Your task to perform on an android device: install app "Yahoo Mail" Image 0: 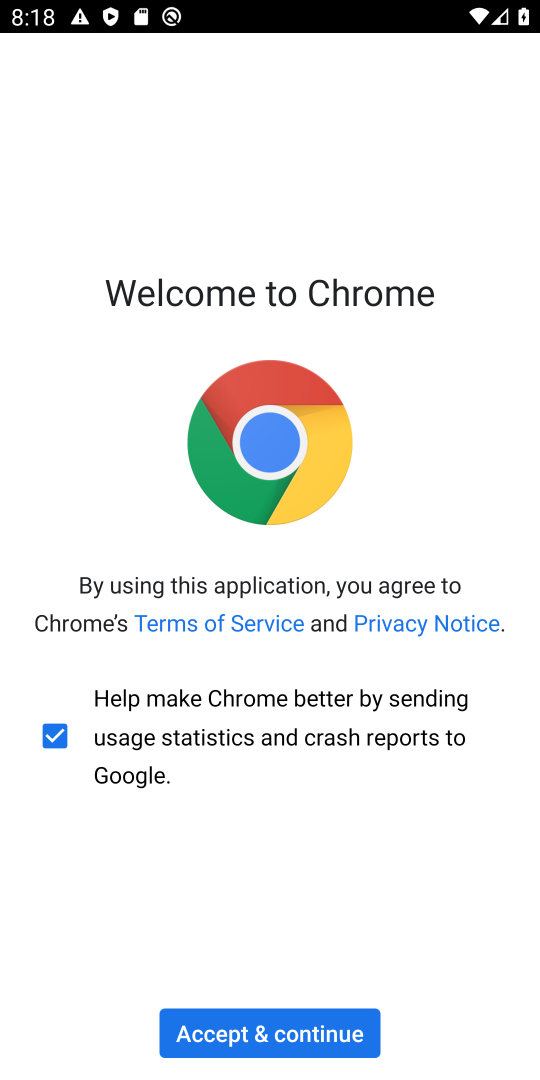
Step 0: press home button
Your task to perform on an android device: install app "Yahoo Mail" Image 1: 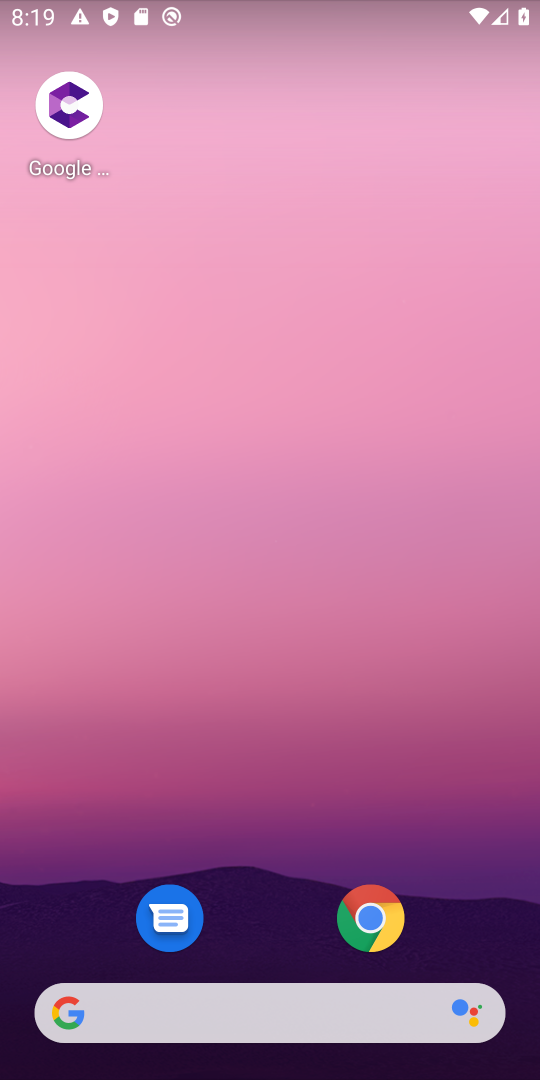
Step 1: drag from (278, 591) to (262, 328)
Your task to perform on an android device: install app "Yahoo Mail" Image 2: 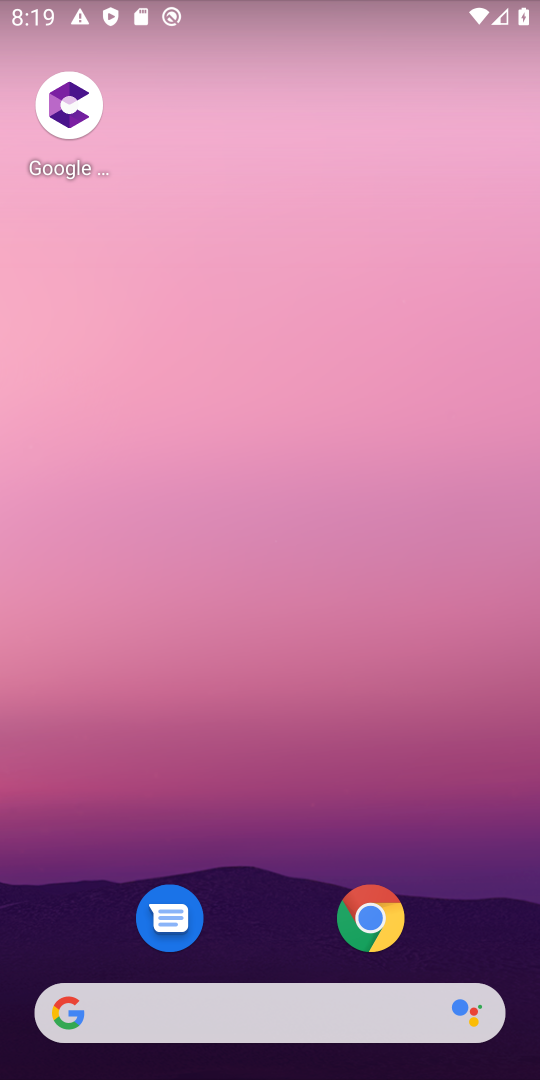
Step 2: drag from (200, 1006) to (267, 57)
Your task to perform on an android device: install app "Yahoo Mail" Image 3: 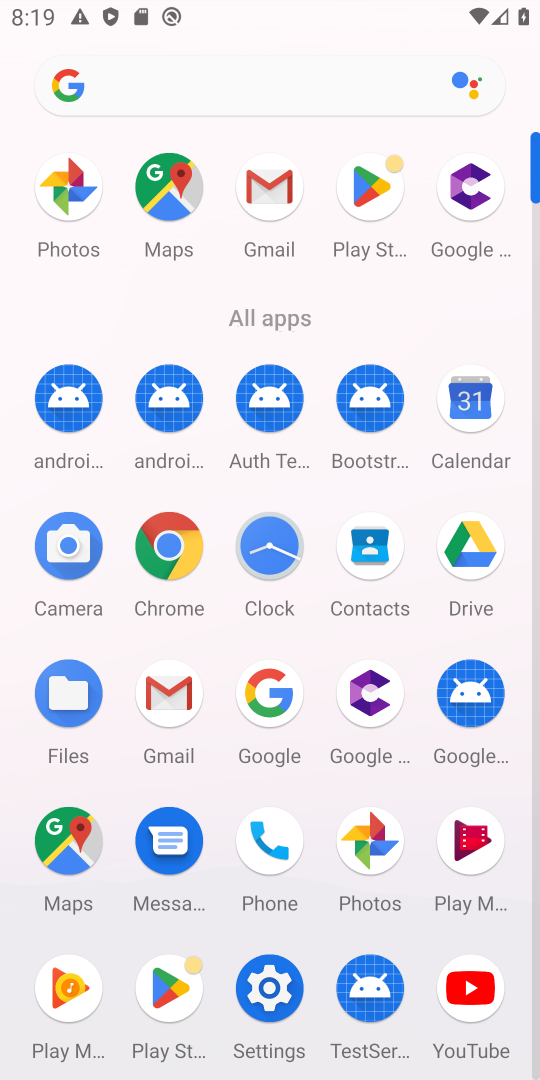
Step 3: click (367, 168)
Your task to perform on an android device: install app "Yahoo Mail" Image 4: 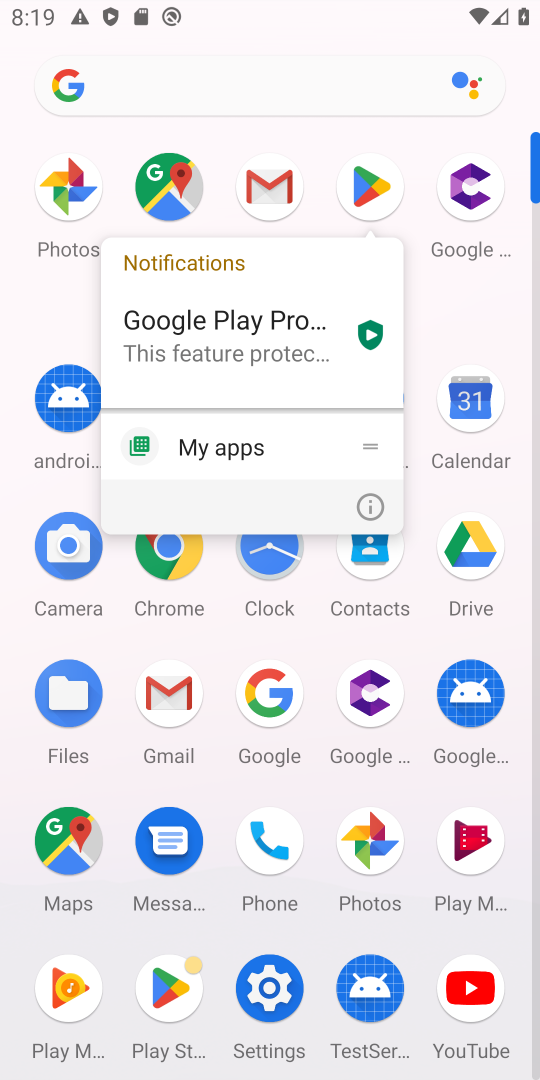
Step 4: click (367, 168)
Your task to perform on an android device: install app "Yahoo Mail" Image 5: 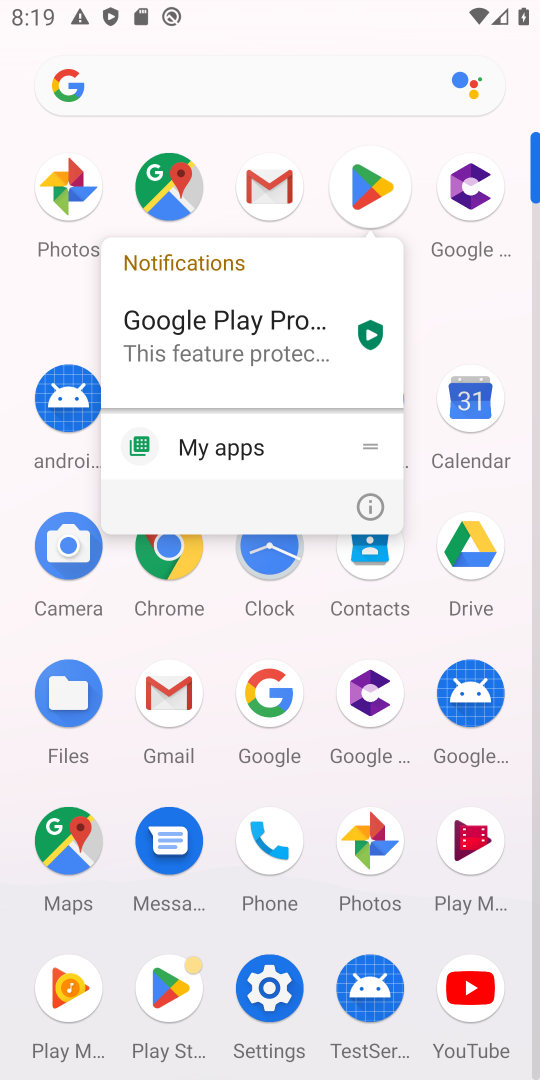
Step 5: click (367, 168)
Your task to perform on an android device: install app "Yahoo Mail" Image 6: 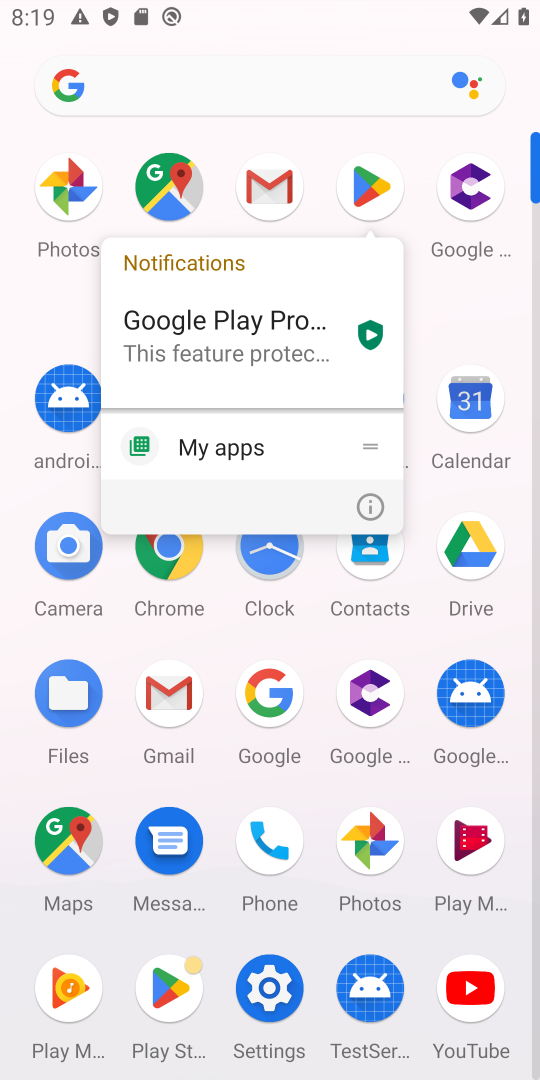
Step 6: press home button
Your task to perform on an android device: install app "Yahoo Mail" Image 7: 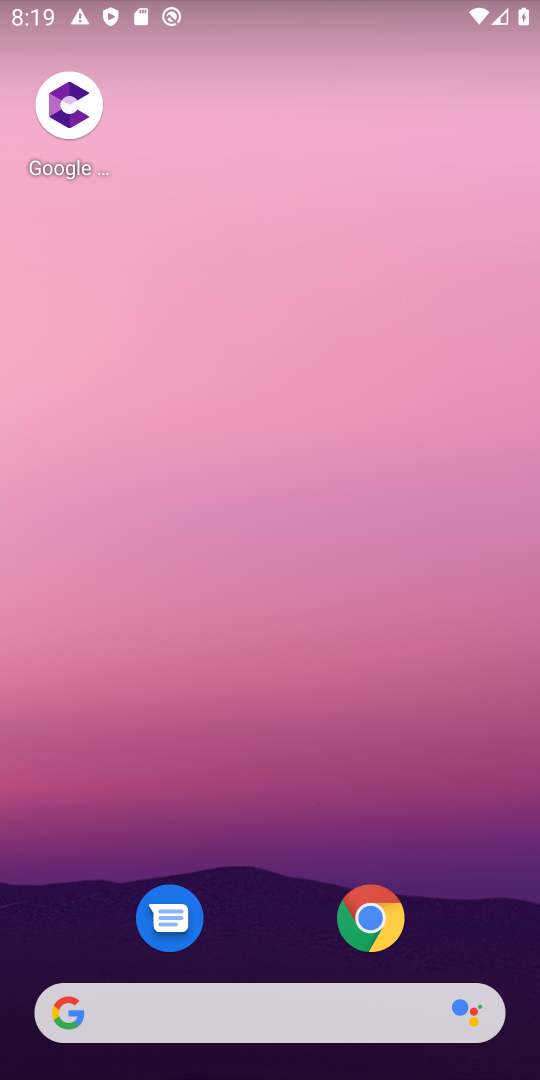
Step 7: drag from (144, 1039) to (512, 449)
Your task to perform on an android device: install app "Yahoo Mail" Image 8: 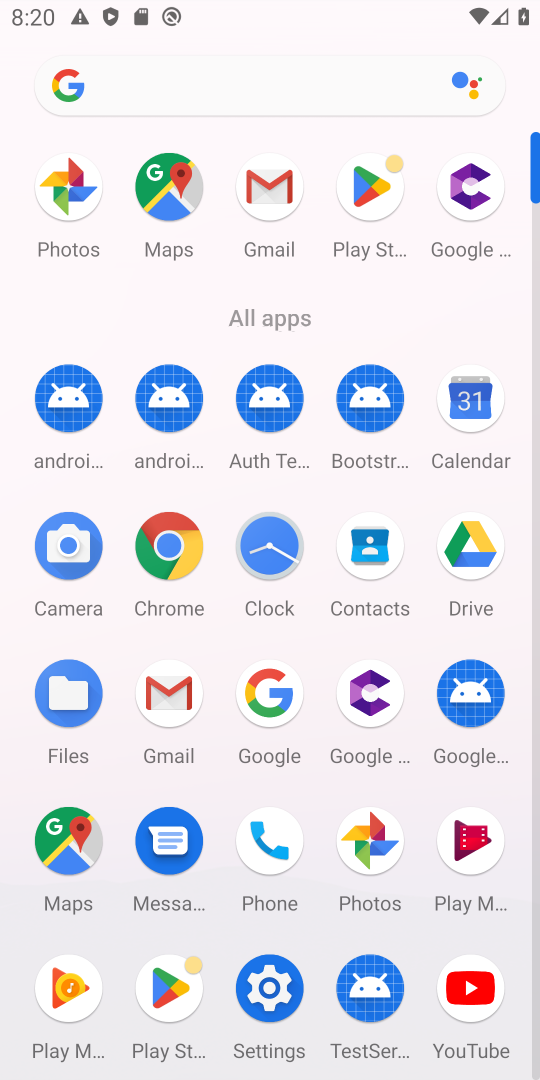
Step 8: click (372, 198)
Your task to perform on an android device: install app "Yahoo Mail" Image 9: 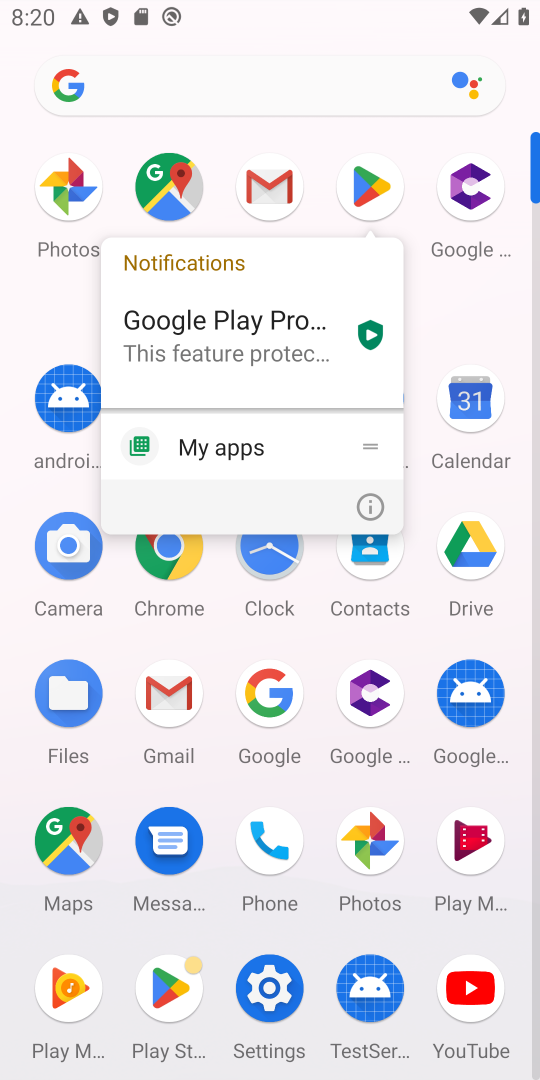
Step 9: click (372, 198)
Your task to perform on an android device: install app "Yahoo Mail" Image 10: 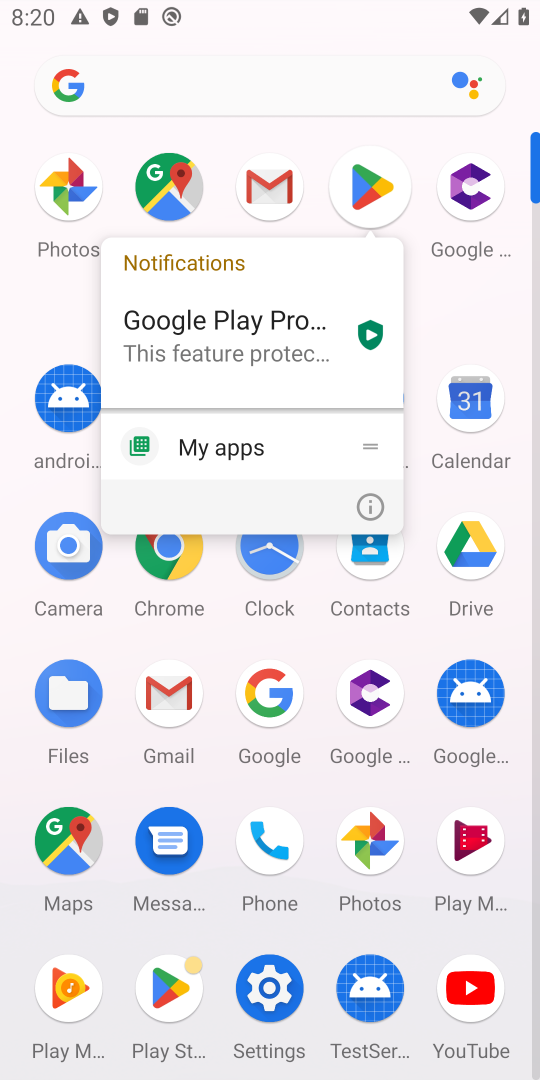
Step 10: click (372, 198)
Your task to perform on an android device: install app "Yahoo Mail" Image 11: 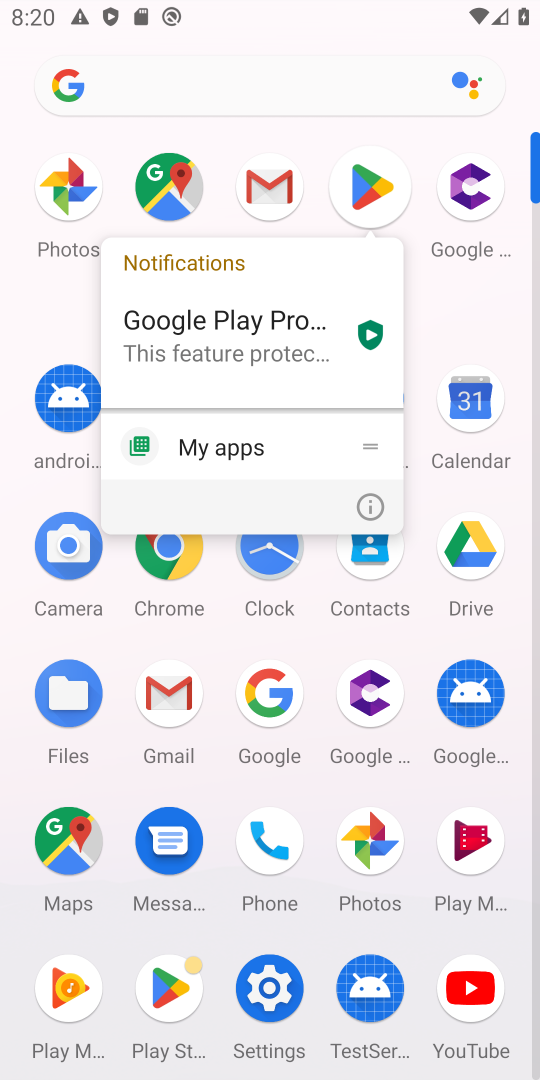
Step 11: click (372, 198)
Your task to perform on an android device: install app "Yahoo Mail" Image 12: 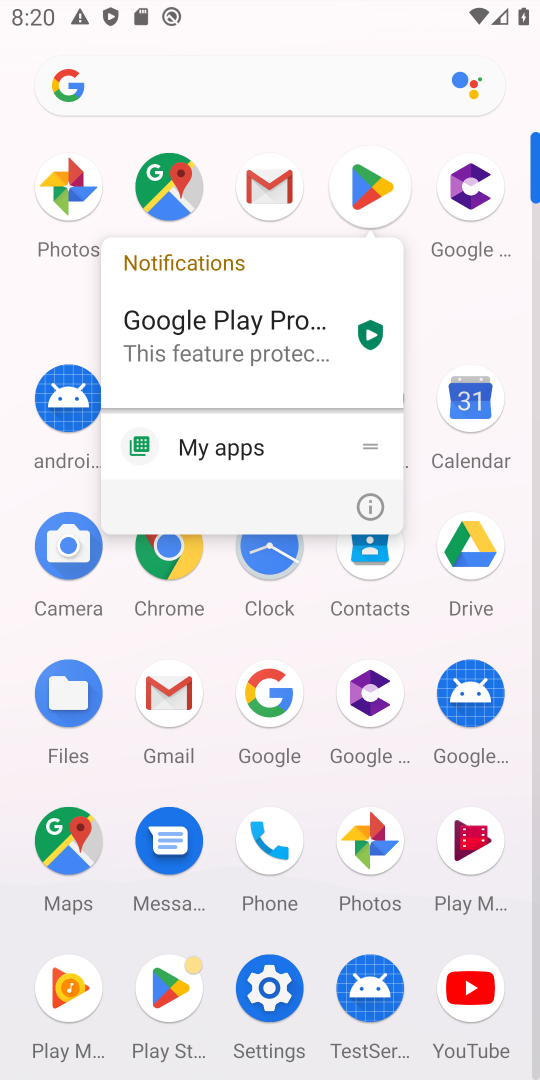
Step 12: click (372, 198)
Your task to perform on an android device: install app "Yahoo Mail" Image 13: 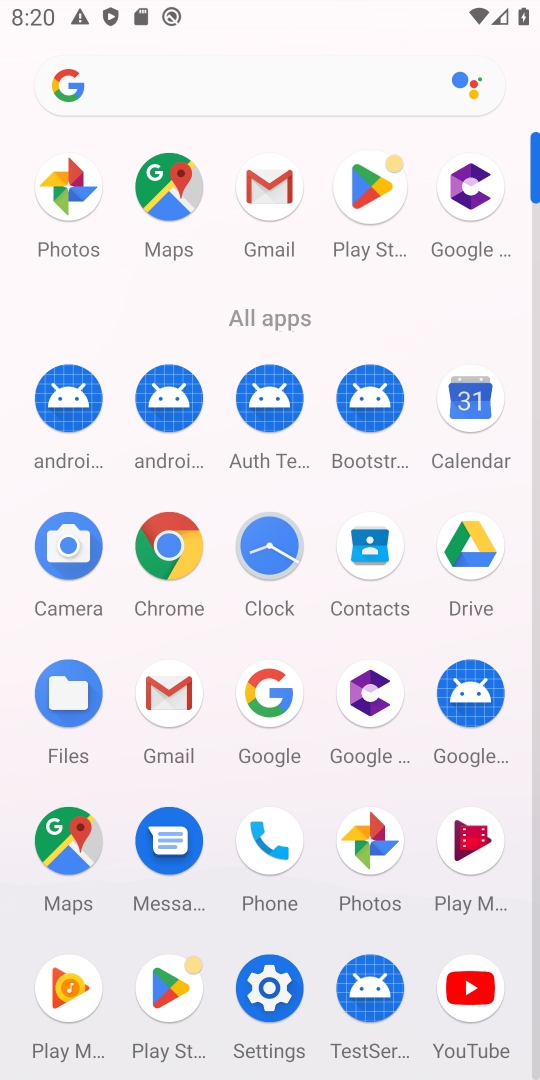
Step 13: click (372, 198)
Your task to perform on an android device: install app "Yahoo Mail" Image 14: 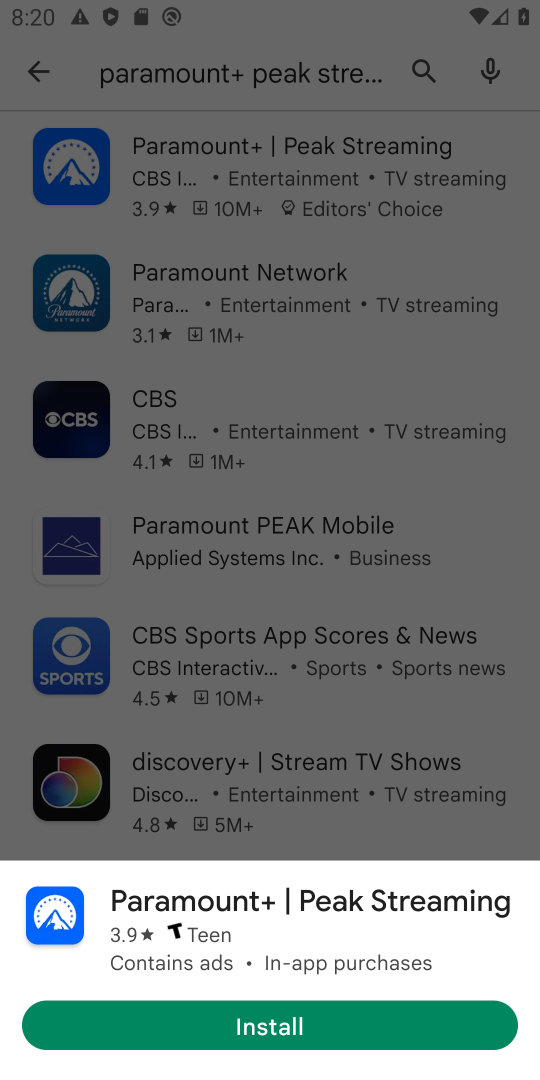
Step 14: click (378, 42)
Your task to perform on an android device: install app "Yahoo Mail" Image 15: 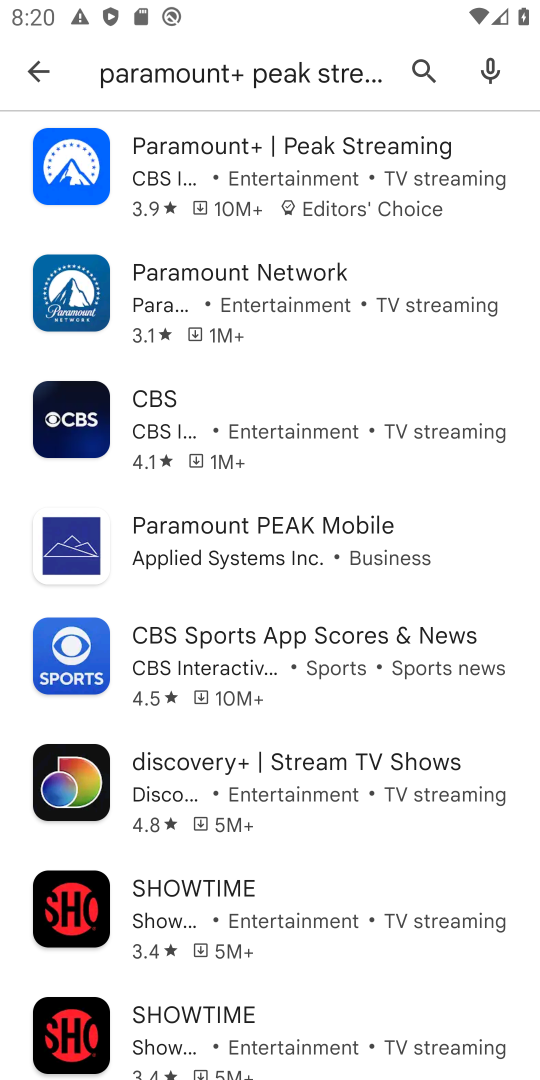
Step 15: click (418, 64)
Your task to perform on an android device: install app "Yahoo Mail" Image 16: 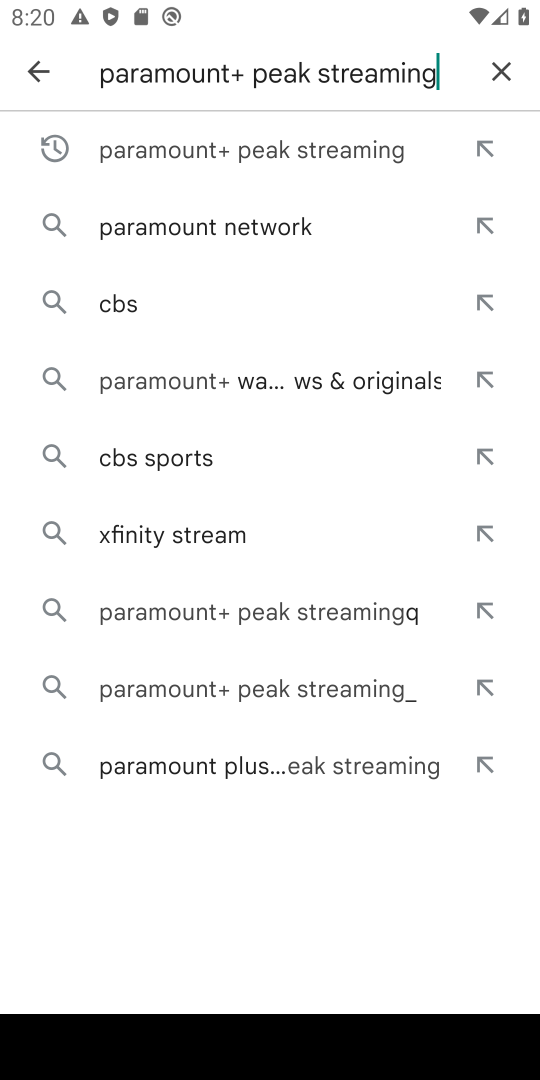
Step 16: click (492, 81)
Your task to perform on an android device: install app "Yahoo Mail" Image 17: 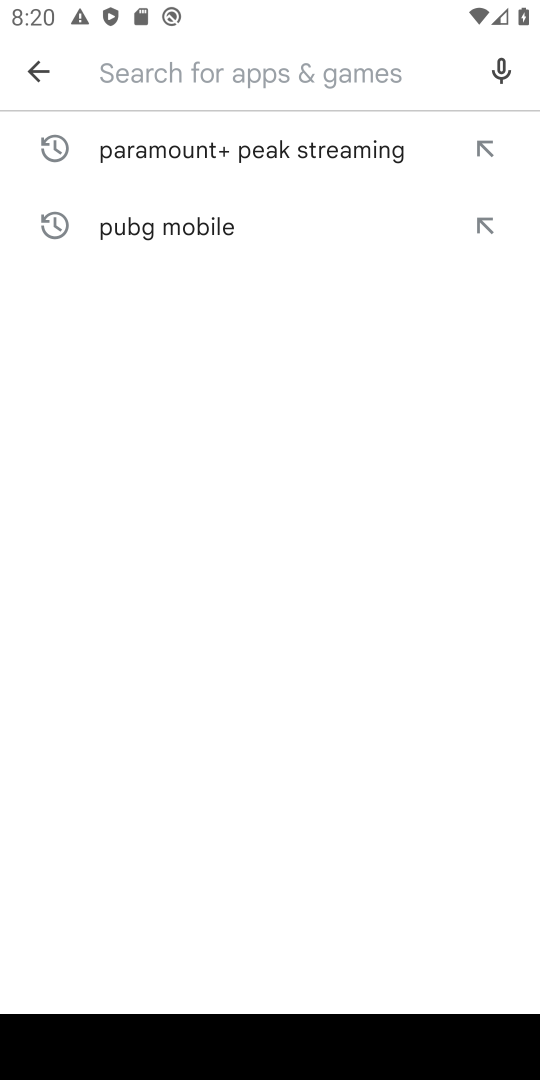
Step 17: type "Yahoo Mail"
Your task to perform on an android device: install app "Yahoo Mail" Image 18: 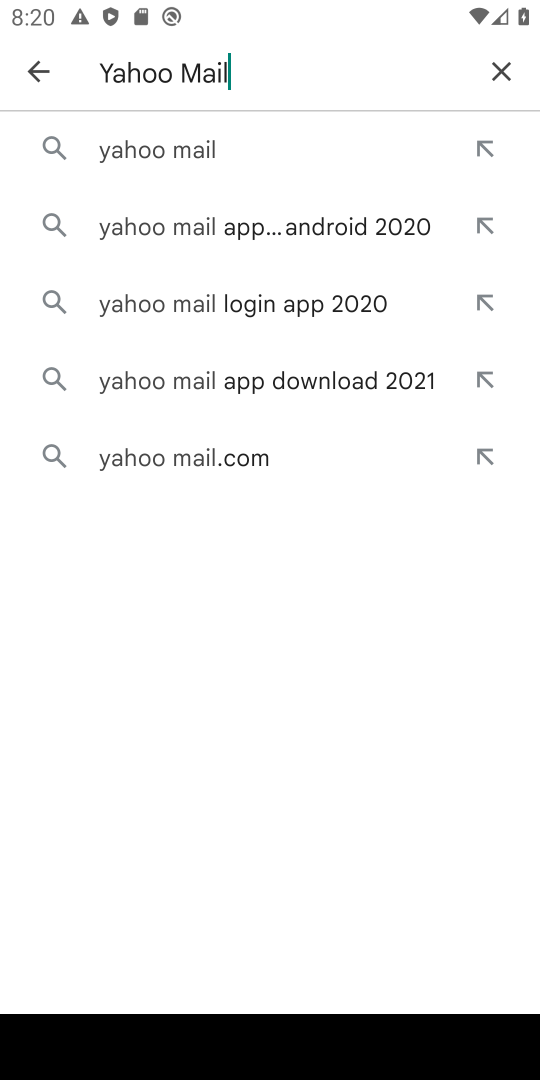
Step 18: click (155, 151)
Your task to perform on an android device: install app "Yahoo Mail" Image 19: 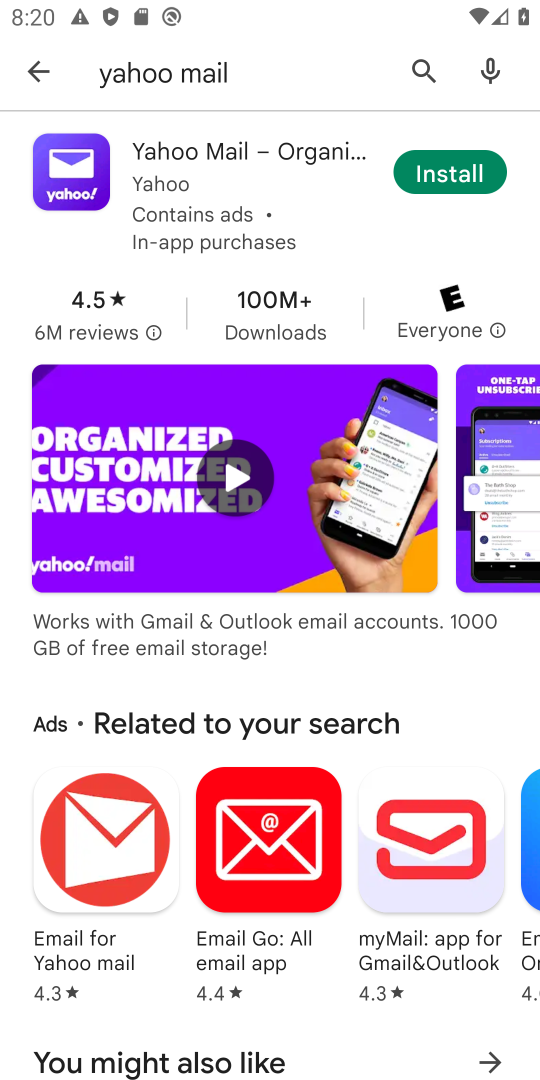
Step 19: click (430, 183)
Your task to perform on an android device: install app "Yahoo Mail" Image 20: 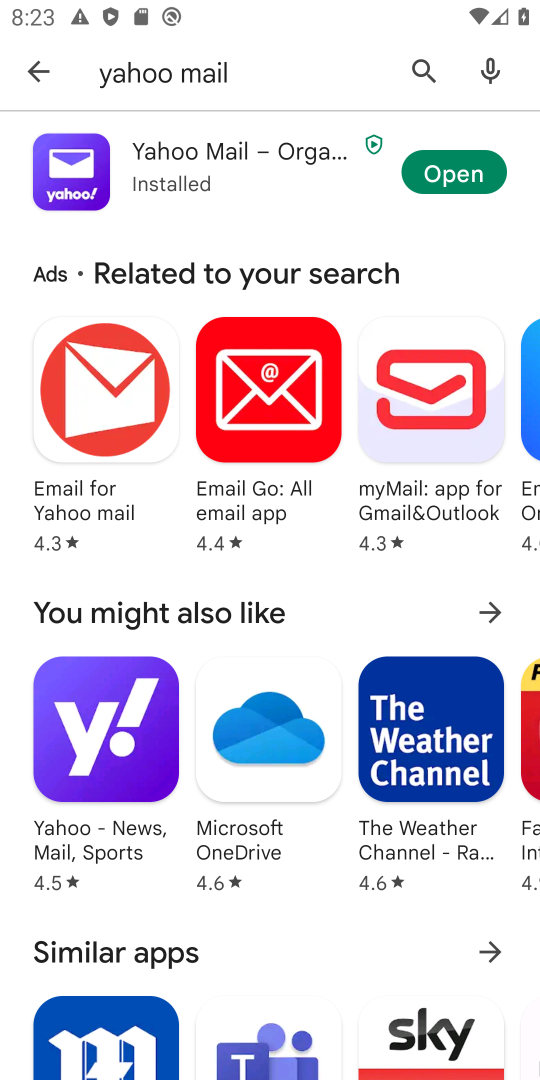
Step 20: task complete